Your task to perform on an android device: Search for a home improvement project you can do. Image 0: 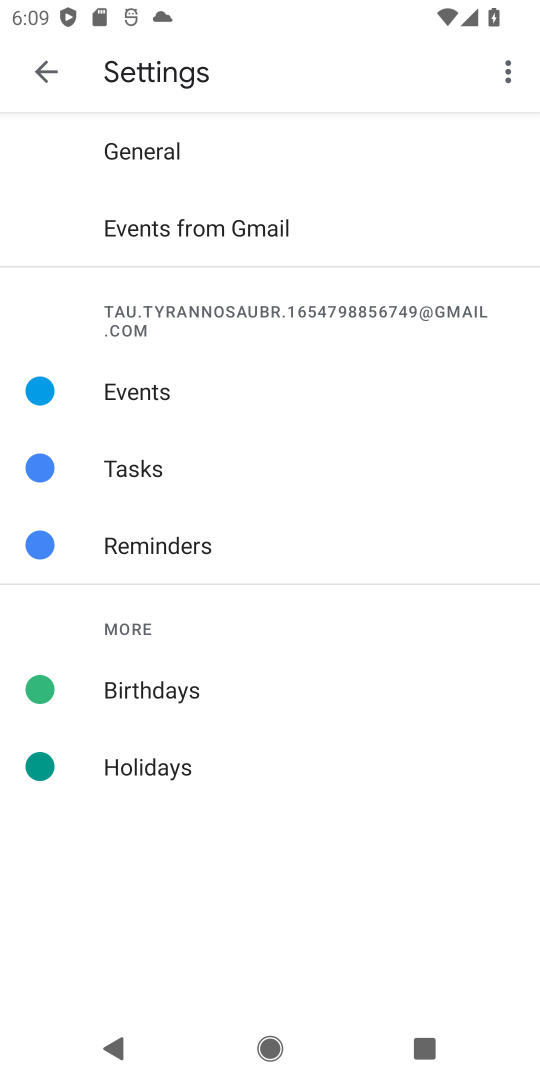
Step 0: press home button
Your task to perform on an android device: Search for a home improvement project you can do. Image 1: 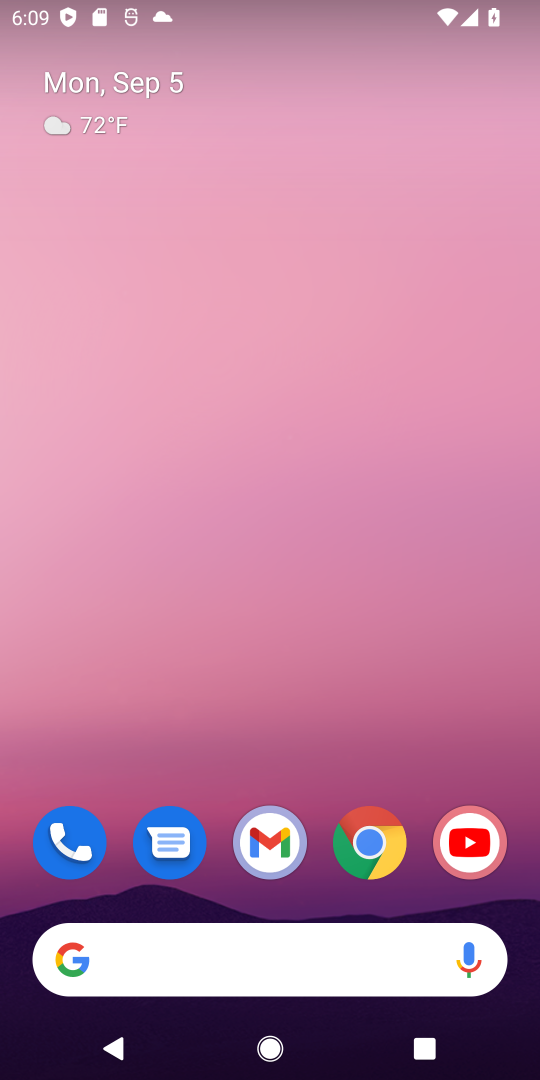
Step 1: click (367, 846)
Your task to perform on an android device: Search for a home improvement project you can do. Image 2: 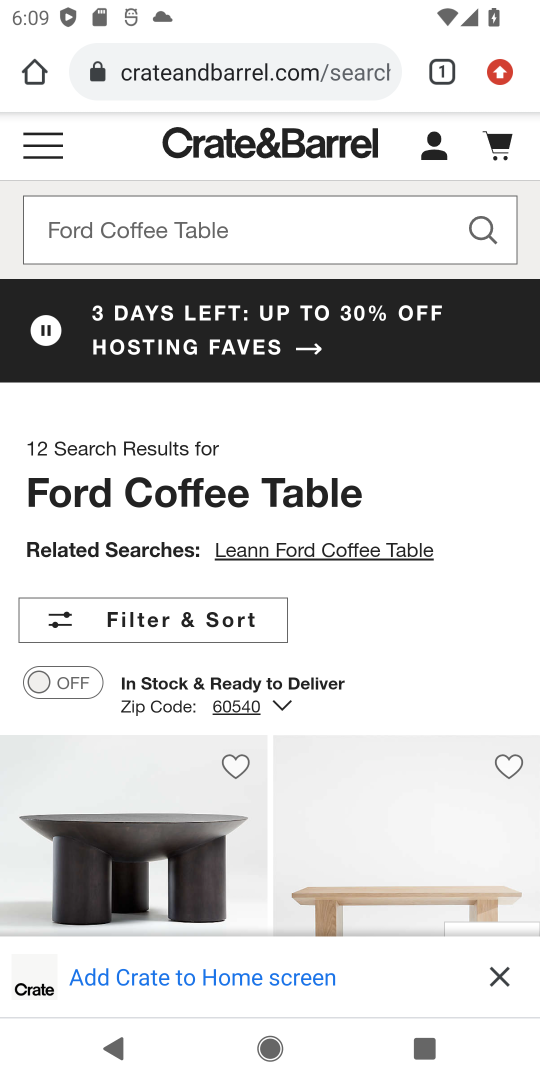
Step 2: click (297, 74)
Your task to perform on an android device: Search for a home improvement project you can do. Image 3: 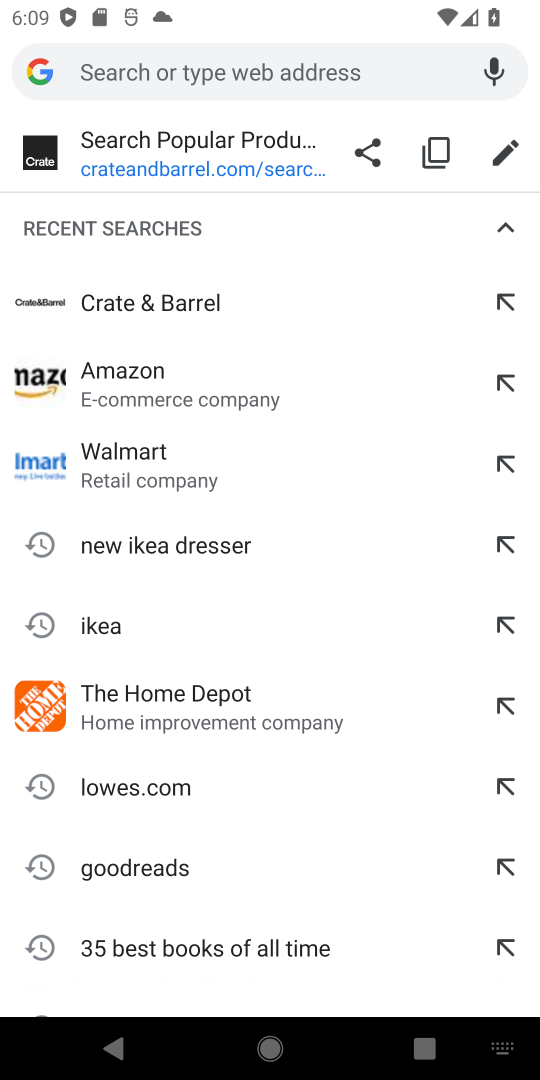
Step 3: type "home improvement project you can do"
Your task to perform on an android device: Search for a home improvement project you can do. Image 4: 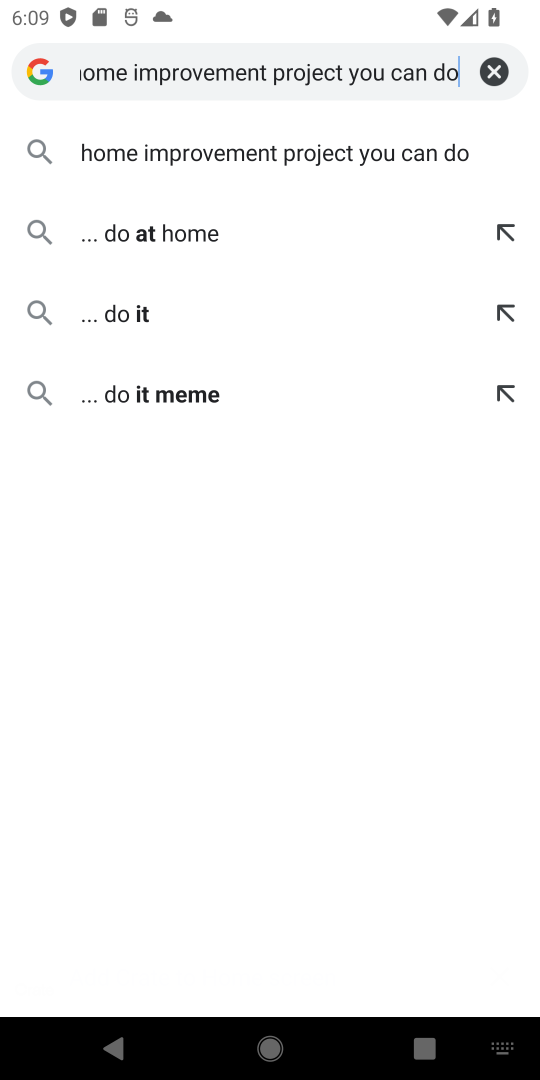
Step 4: click (290, 160)
Your task to perform on an android device: Search for a home improvement project you can do. Image 5: 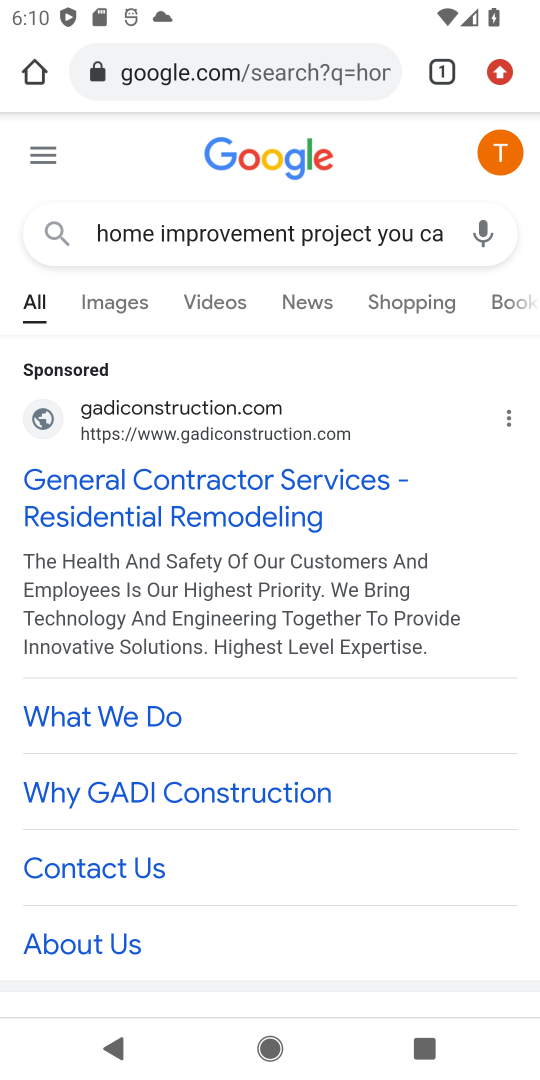
Step 5: drag from (383, 533) to (389, 258)
Your task to perform on an android device: Search for a home improvement project you can do. Image 6: 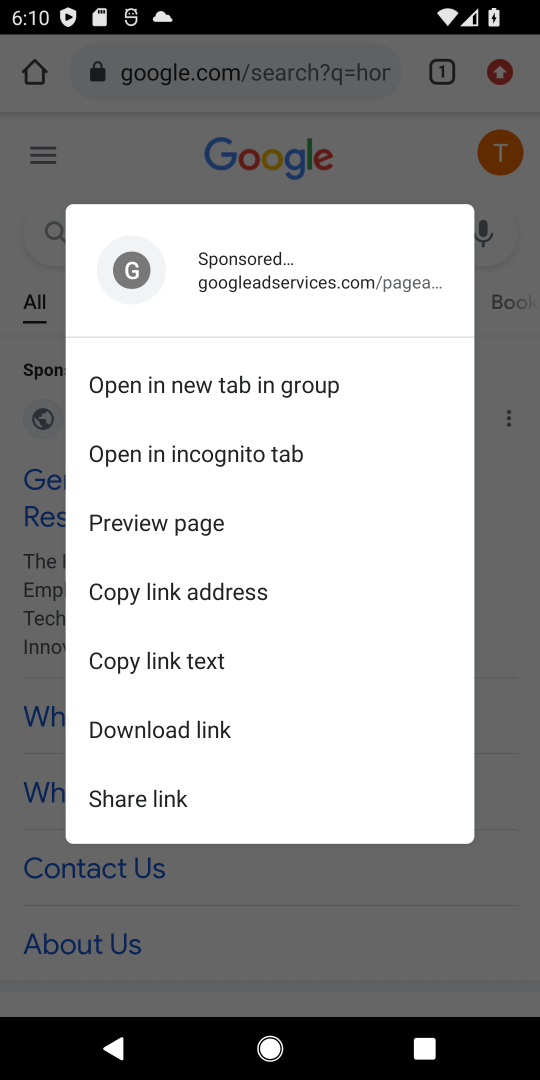
Step 6: click (521, 546)
Your task to perform on an android device: Search for a home improvement project you can do. Image 7: 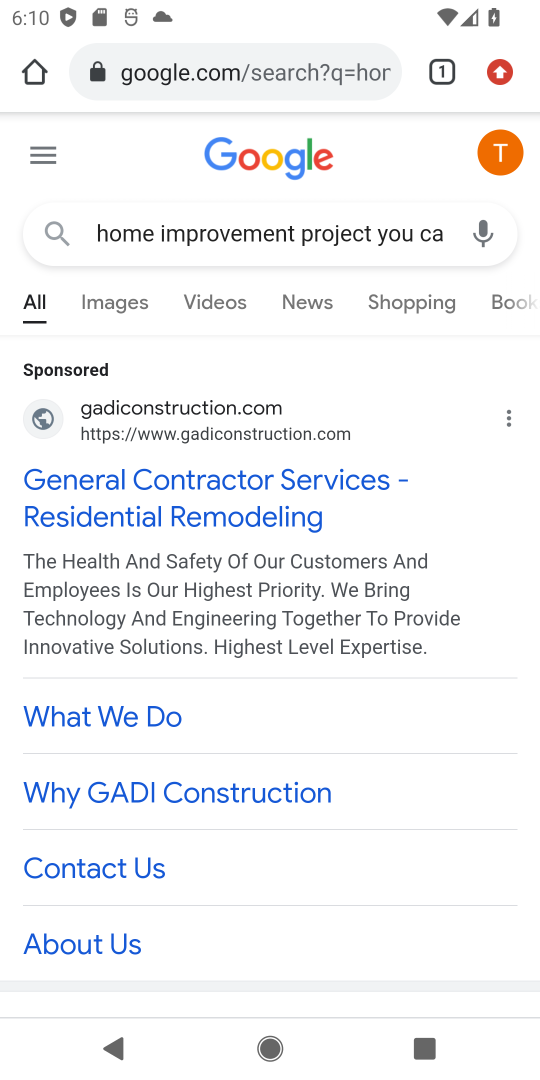
Step 7: drag from (269, 882) to (453, 379)
Your task to perform on an android device: Search for a home improvement project you can do. Image 8: 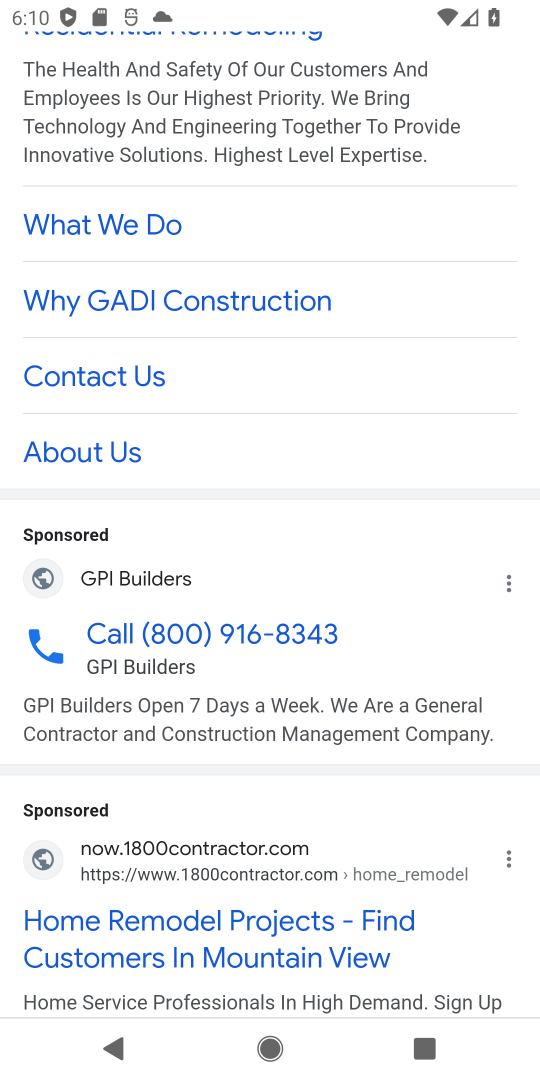
Step 8: drag from (325, 938) to (456, 677)
Your task to perform on an android device: Search for a home improvement project you can do. Image 9: 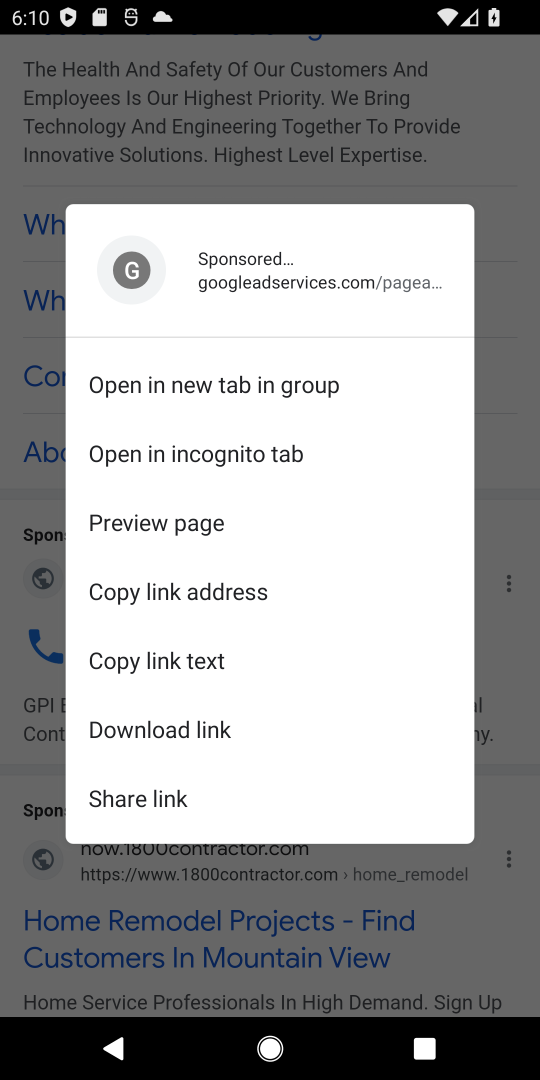
Step 9: click (527, 574)
Your task to perform on an android device: Search for a home improvement project you can do. Image 10: 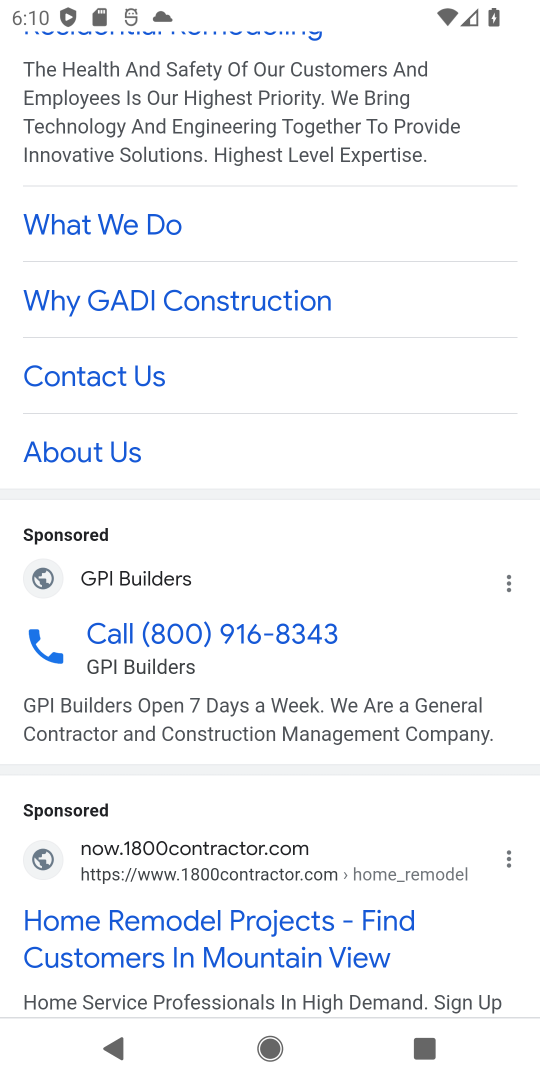
Step 10: drag from (268, 810) to (484, 189)
Your task to perform on an android device: Search for a home improvement project you can do. Image 11: 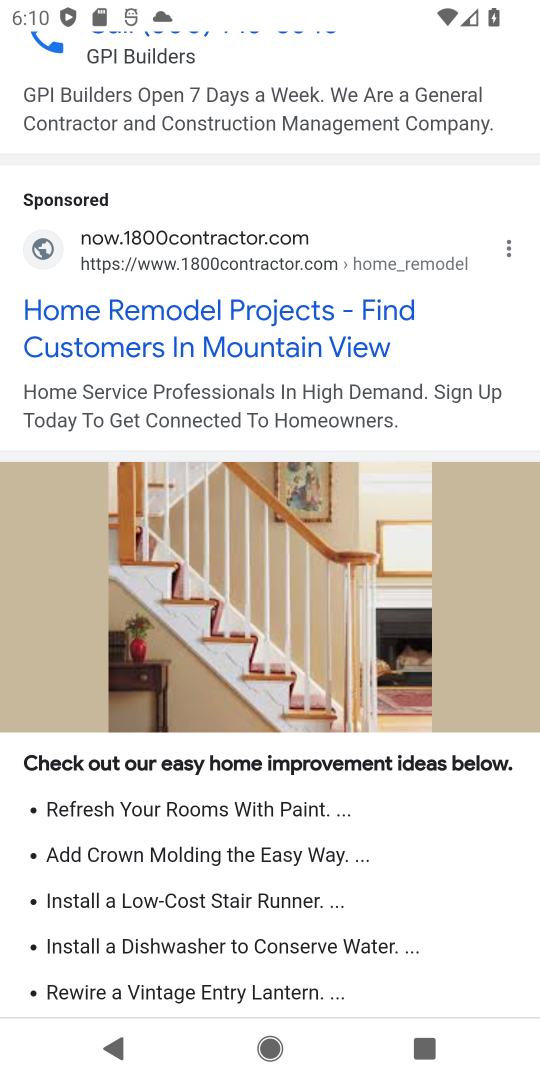
Step 11: drag from (290, 587) to (455, 318)
Your task to perform on an android device: Search for a home improvement project you can do. Image 12: 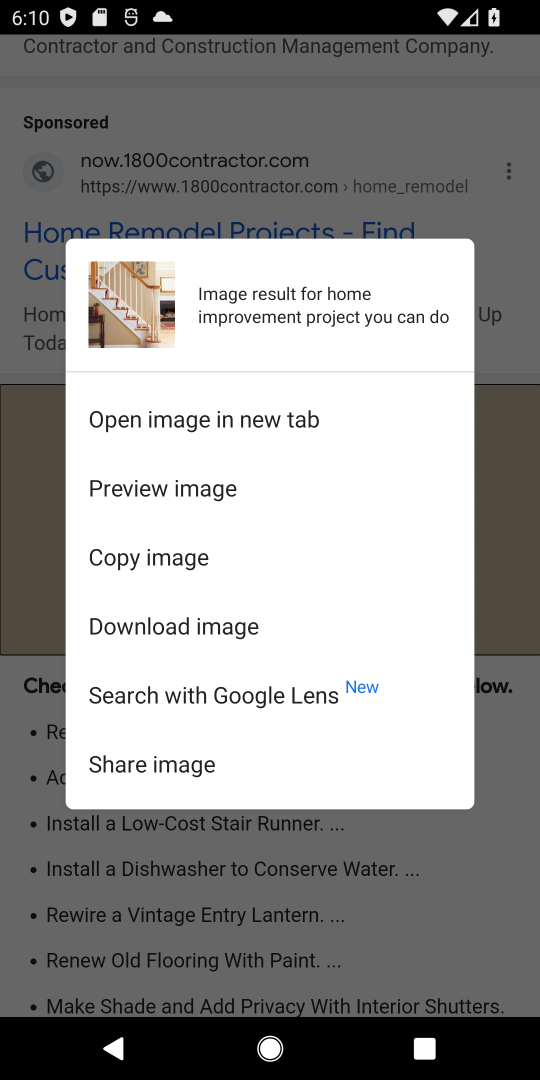
Step 12: click (516, 506)
Your task to perform on an android device: Search for a home improvement project you can do. Image 13: 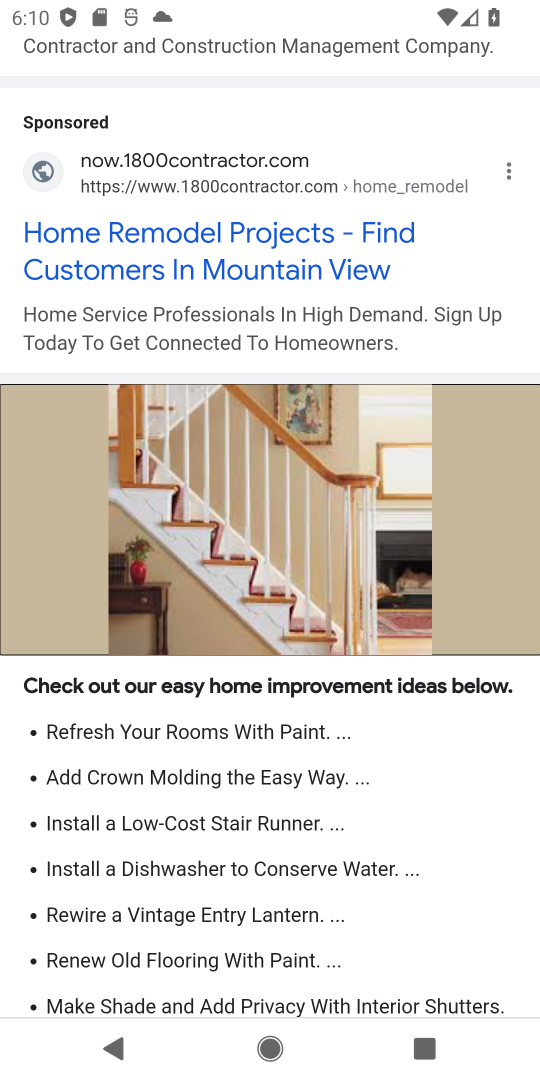
Step 13: drag from (226, 813) to (196, 330)
Your task to perform on an android device: Search for a home improvement project you can do. Image 14: 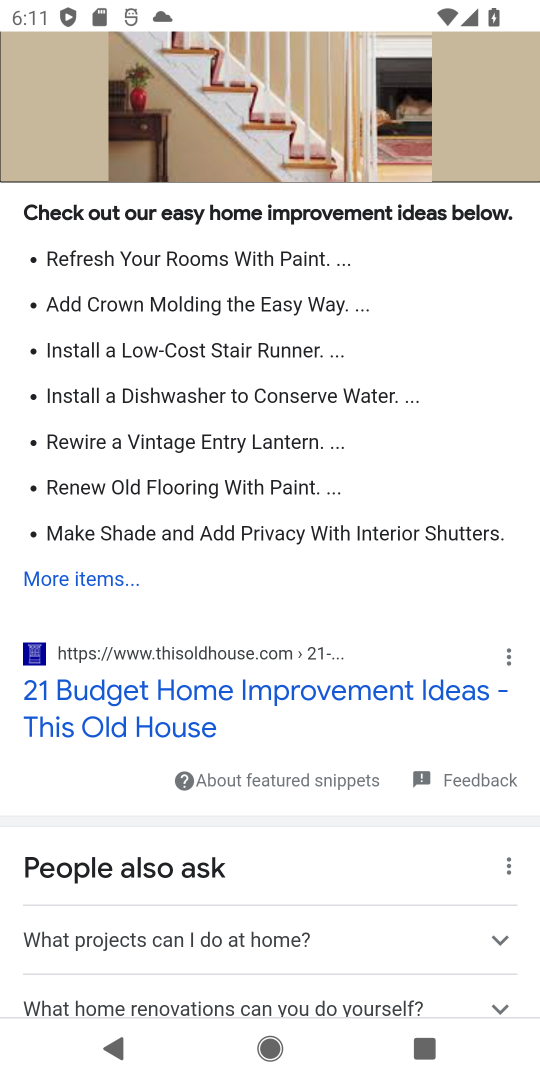
Step 14: click (260, 717)
Your task to perform on an android device: Search for a home improvement project you can do. Image 15: 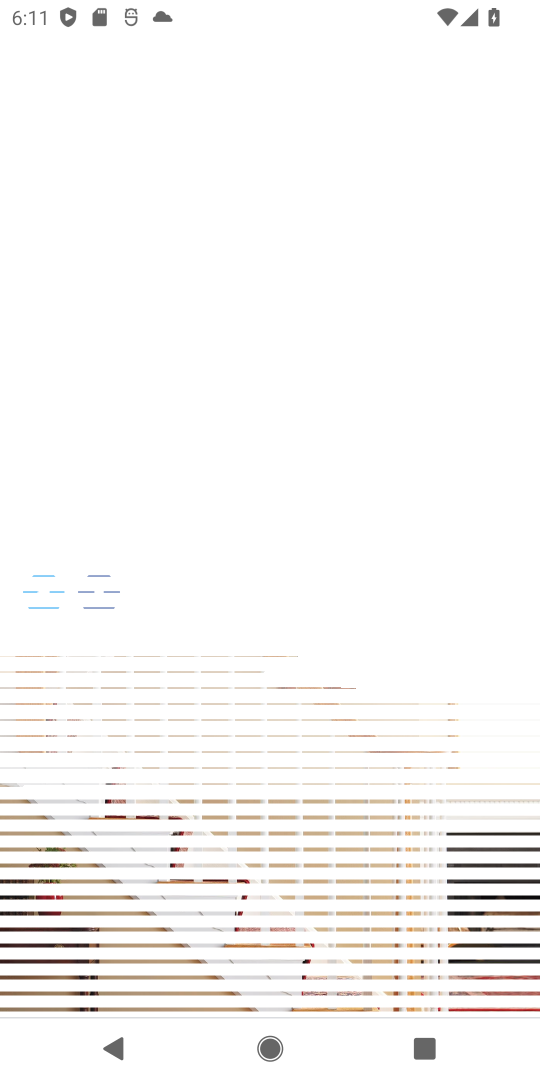
Step 15: task complete